Your task to perform on an android device: turn off smart reply in the gmail app Image 0: 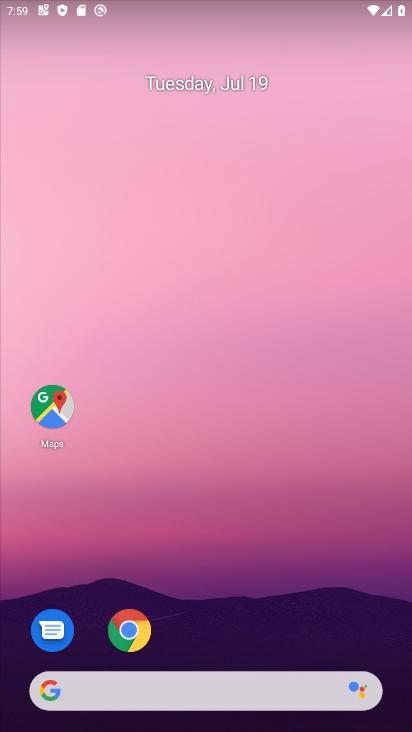
Step 0: drag from (218, 622) to (266, 71)
Your task to perform on an android device: turn off smart reply in the gmail app Image 1: 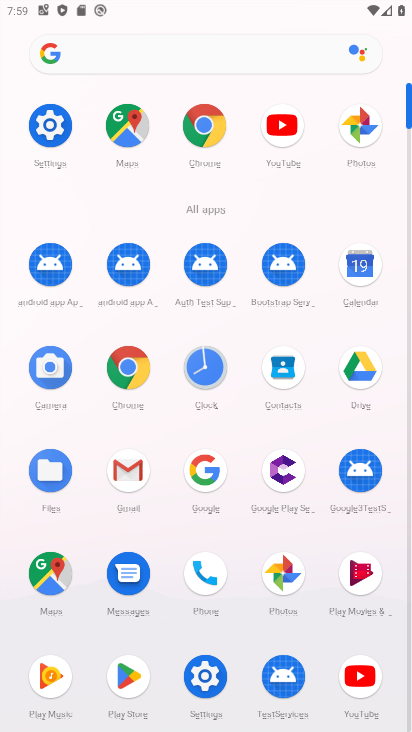
Step 1: click (129, 468)
Your task to perform on an android device: turn off smart reply in the gmail app Image 2: 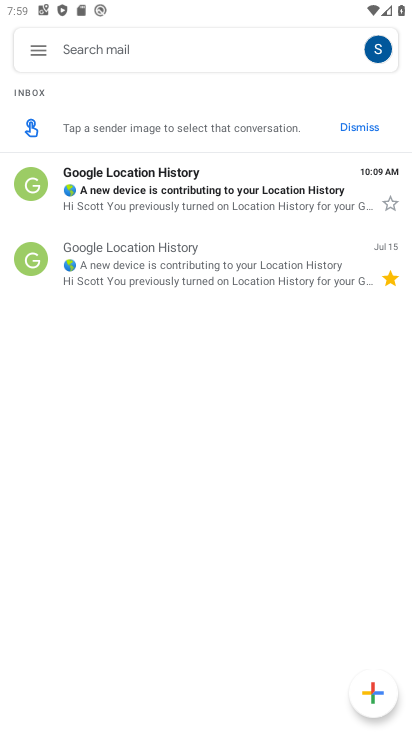
Step 2: click (36, 50)
Your task to perform on an android device: turn off smart reply in the gmail app Image 3: 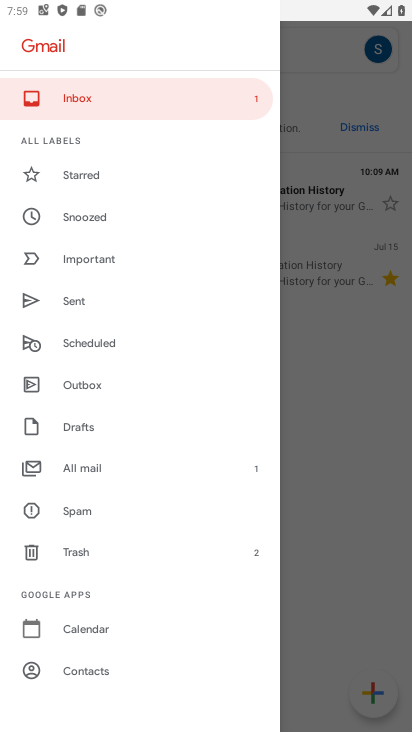
Step 3: drag from (67, 651) to (177, 131)
Your task to perform on an android device: turn off smart reply in the gmail app Image 4: 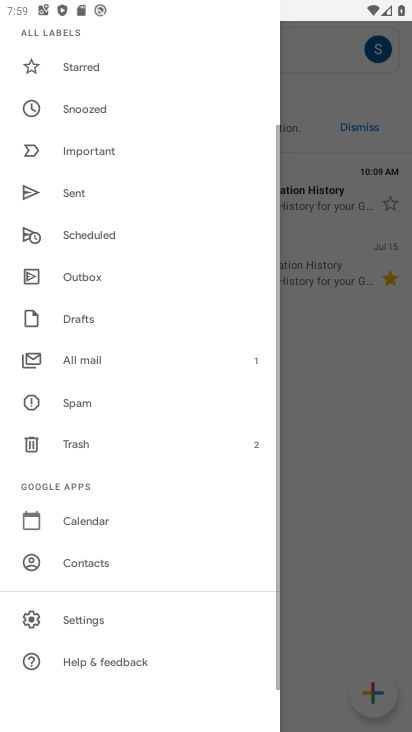
Step 4: click (89, 621)
Your task to perform on an android device: turn off smart reply in the gmail app Image 5: 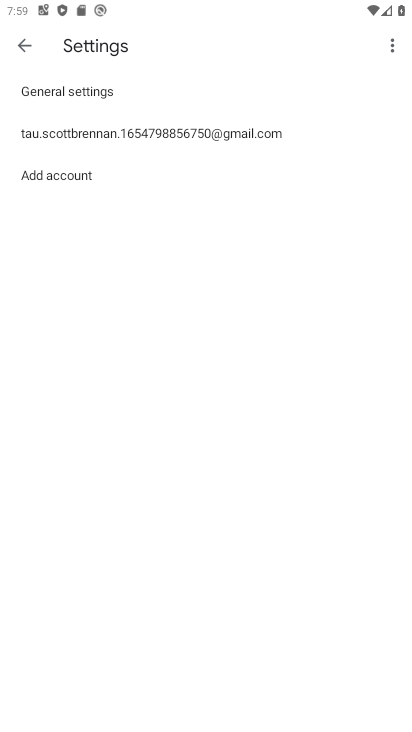
Step 5: click (169, 123)
Your task to perform on an android device: turn off smart reply in the gmail app Image 6: 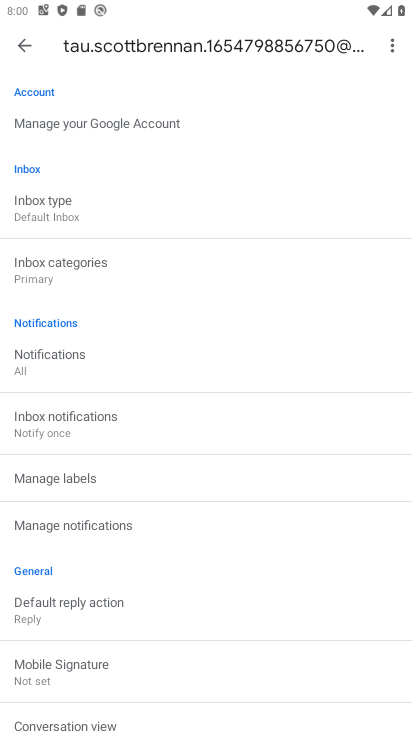
Step 6: drag from (106, 511) to (204, 217)
Your task to perform on an android device: turn off smart reply in the gmail app Image 7: 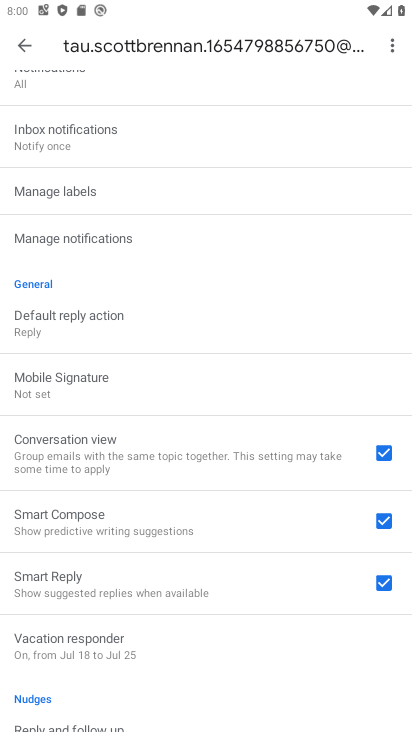
Step 7: click (390, 579)
Your task to perform on an android device: turn off smart reply in the gmail app Image 8: 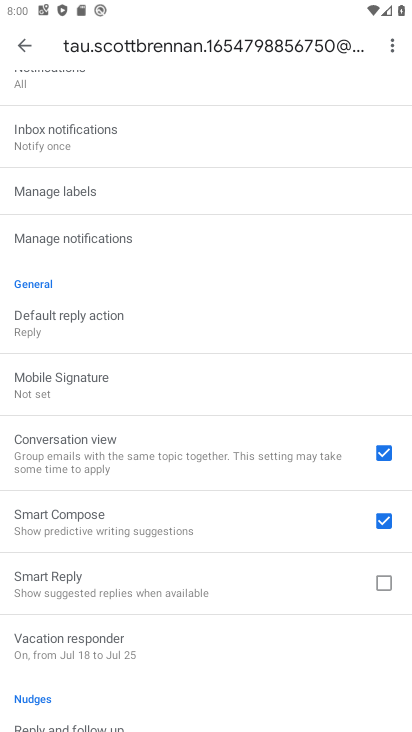
Step 8: task complete